Your task to perform on an android device: What's the weather going to be tomorrow? Image 0: 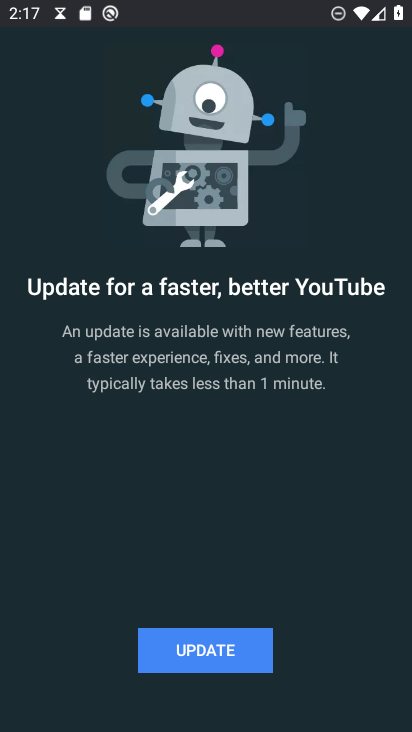
Step 0: press back button
Your task to perform on an android device: What's the weather going to be tomorrow? Image 1: 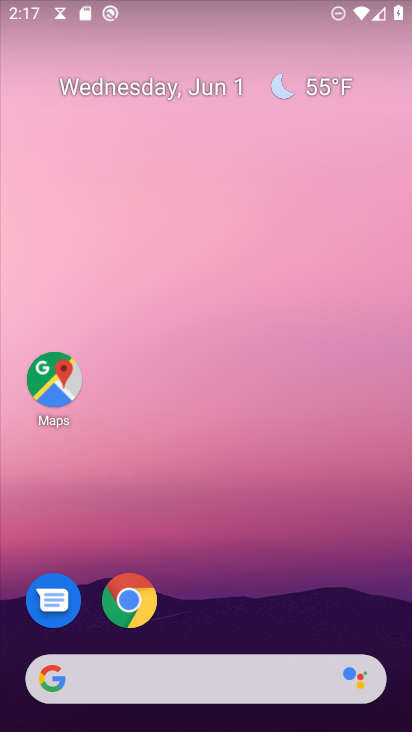
Step 1: drag from (238, 606) to (239, 47)
Your task to perform on an android device: What's the weather going to be tomorrow? Image 2: 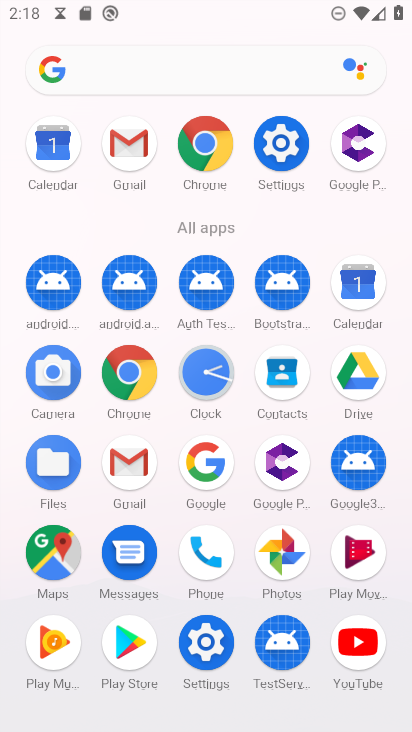
Step 2: click (214, 128)
Your task to perform on an android device: What's the weather going to be tomorrow? Image 3: 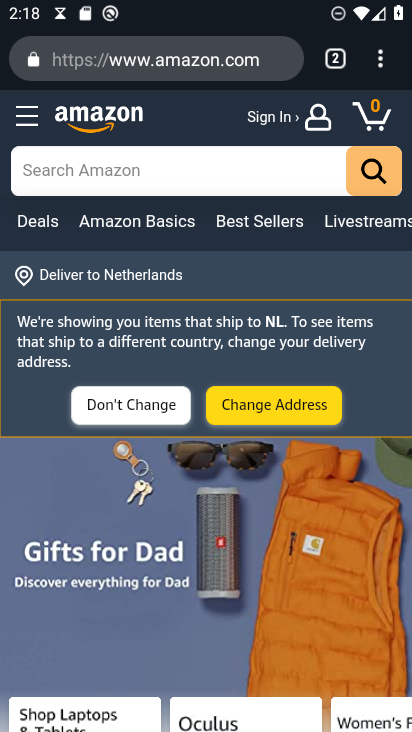
Step 3: click (190, 53)
Your task to perform on an android device: What's the weather going to be tomorrow? Image 4: 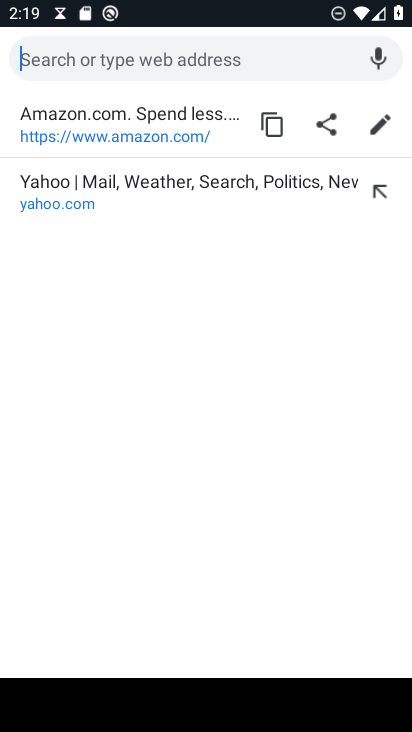
Step 4: type "What's the weather going to be tomorrow?"
Your task to perform on an android device: What's the weather going to be tomorrow? Image 5: 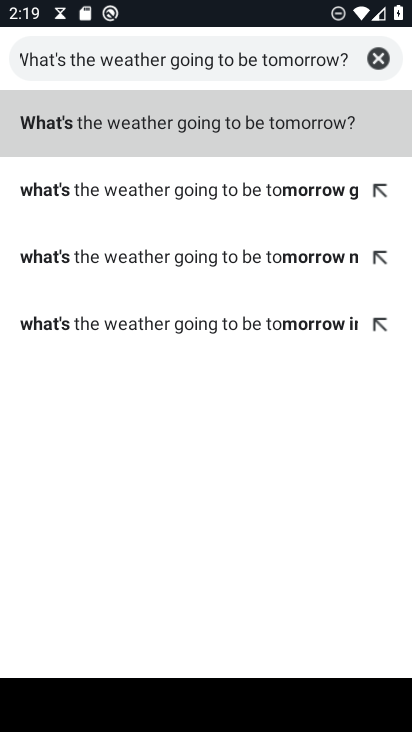
Step 5: click (211, 113)
Your task to perform on an android device: What's the weather going to be tomorrow? Image 6: 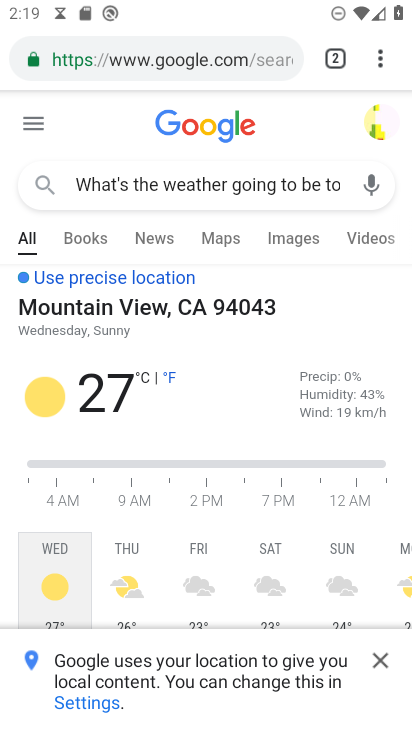
Step 6: click (375, 644)
Your task to perform on an android device: What's the weather going to be tomorrow? Image 7: 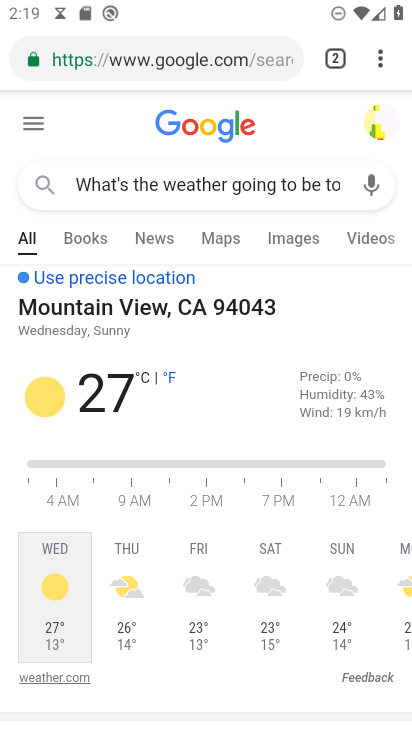
Step 7: task complete